Your task to perform on an android device: all mails in gmail Image 0: 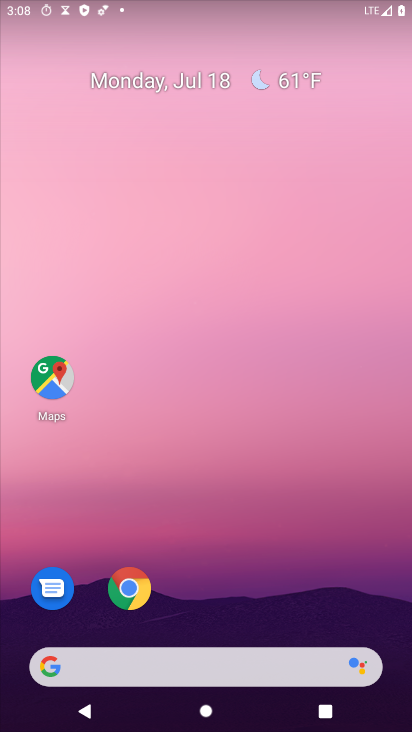
Step 0: drag from (301, 547) to (2, 204)
Your task to perform on an android device: all mails in gmail Image 1: 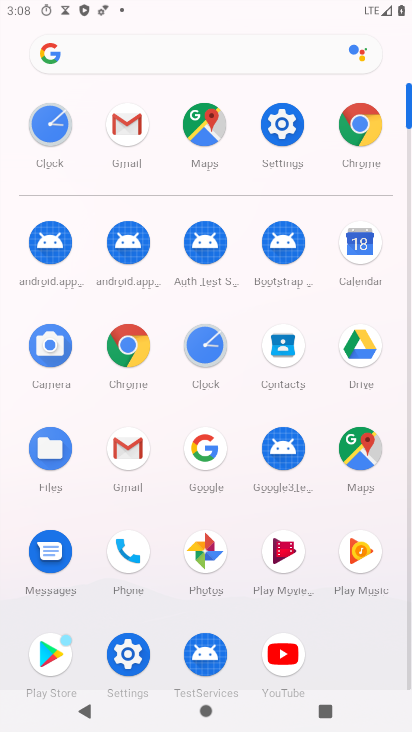
Step 1: click (130, 126)
Your task to perform on an android device: all mails in gmail Image 2: 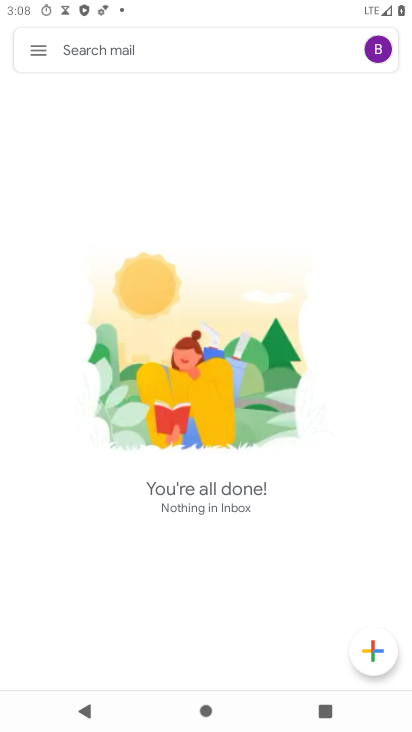
Step 2: click (43, 56)
Your task to perform on an android device: all mails in gmail Image 3: 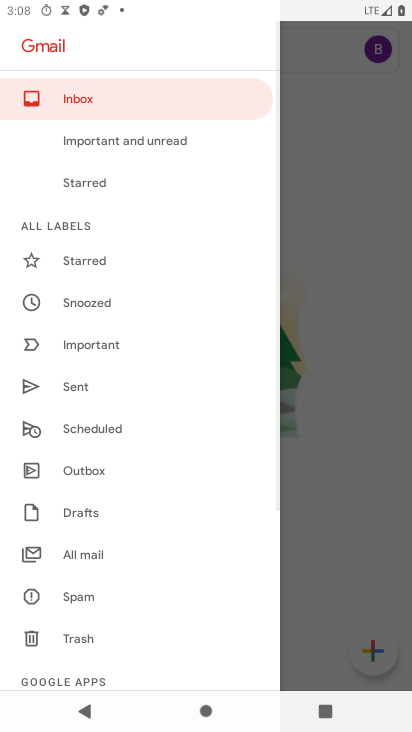
Step 3: drag from (130, 610) to (215, 134)
Your task to perform on an android device: all mails in gmail Image 4: 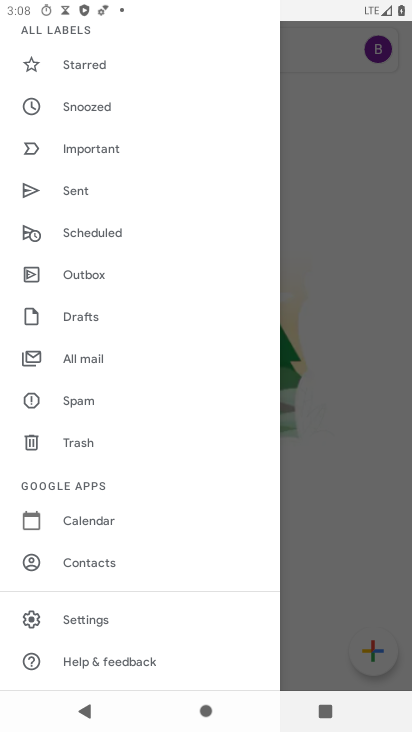
Step 4: click (86, 355)
Your task to perform on an android device: all mails in gmail Image 5: 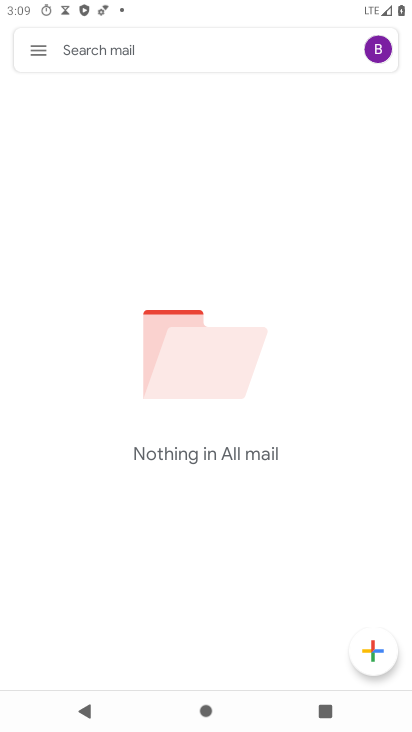
Step 5: task complete